Your task to perform on an android device: toggle notification dots Image 0: 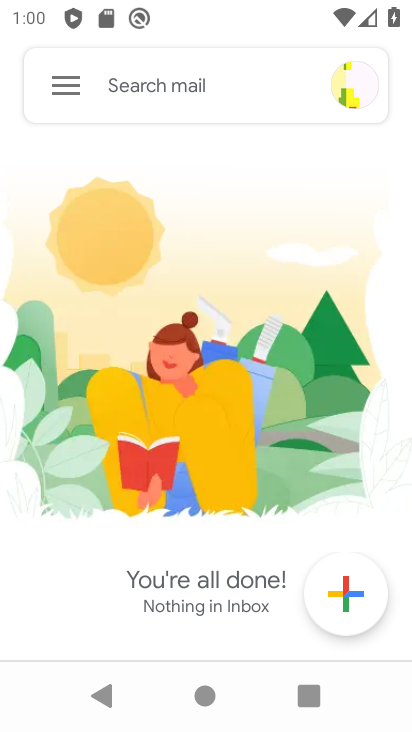
Step 0: press home button
Your task to perform on an android device: toggle notification dots Image 1: 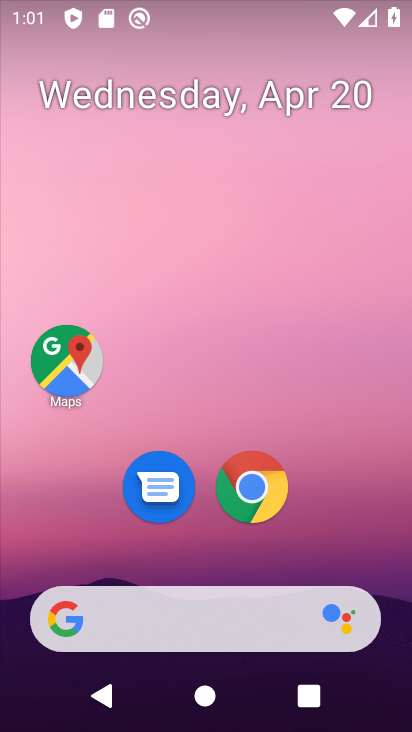
Step 1: drag from (363, 563) to (257, 145)
Your task to perform on an android device: toggle notification dots Image 2: 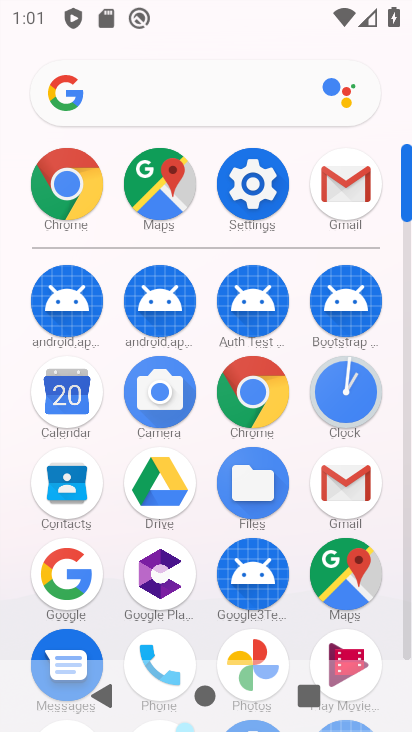
Step 2: click (254, 199)
Your task to perform on an android device: toggle notification dots Image 3: 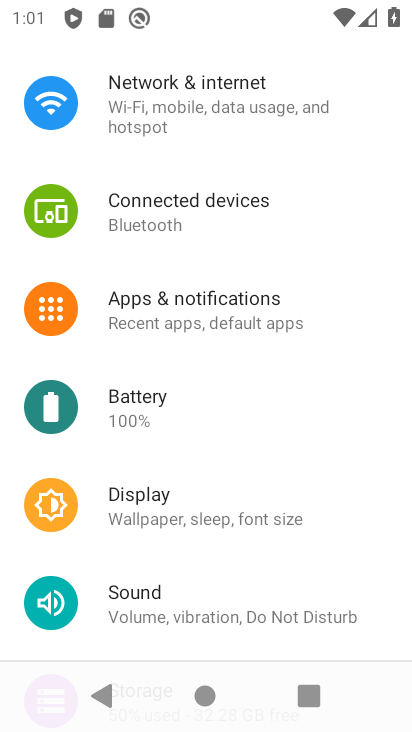
Step 3: click (296, 304)
Your task to perform on an android device: toggle notification dots Image 4: 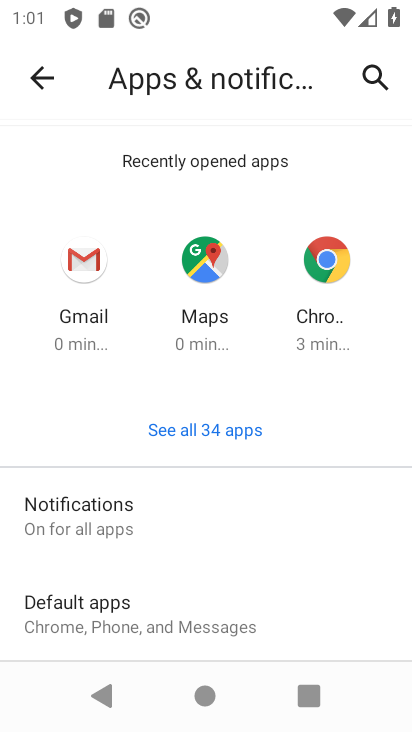
Step 4: click (166, 540)
Your task to perform on an android device: toggle notification dots Image 5: 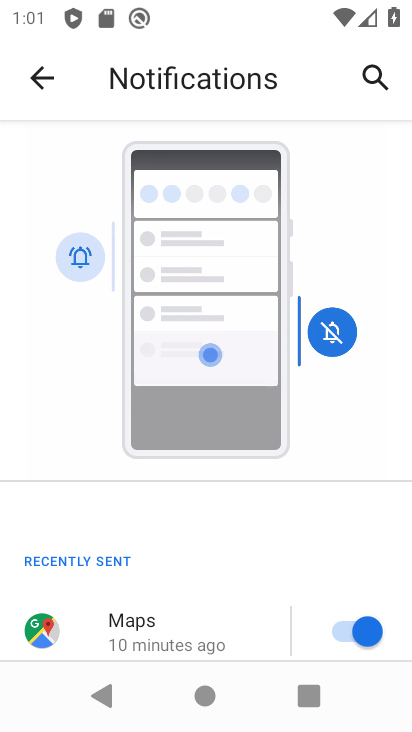
Step 5: drag from (175, 621) to (141, 41)
Your task to perform on an android device: toggle notification dots Image 6: 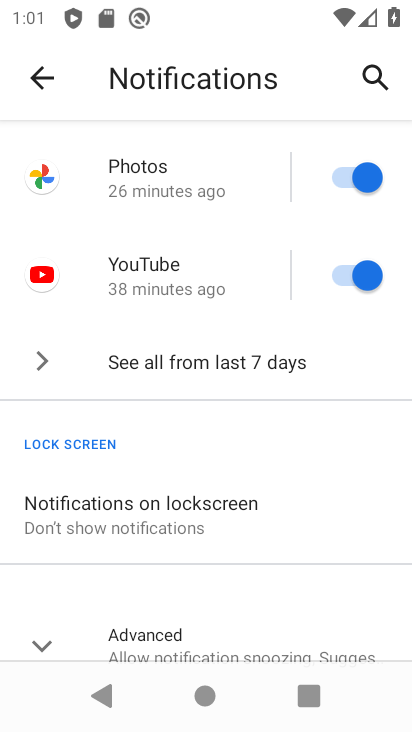
Step 6: drag from (202, 593) to (208, 160)
Your task to perform on an android device: toggle notification dots Image 7: 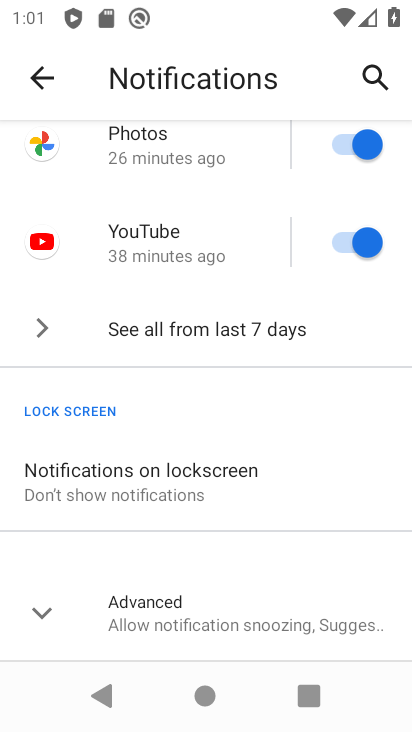
Step 7: click (38, 614)
Your task to perform on an android device: toggle notification dots Image 8: 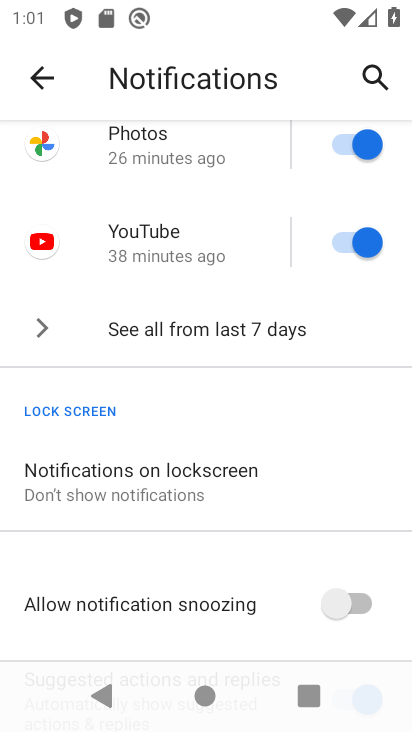
Step 8: drag from (169, 625) to (228, 254)
Your task to perform on an android device: toggle notification dots Image 9: 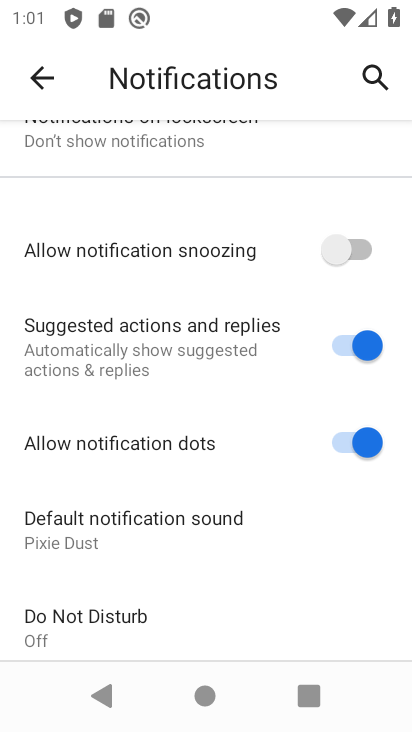
Step 9: click (285, 436)
Your task to perform on an android device: toggle notification dots Image 10: 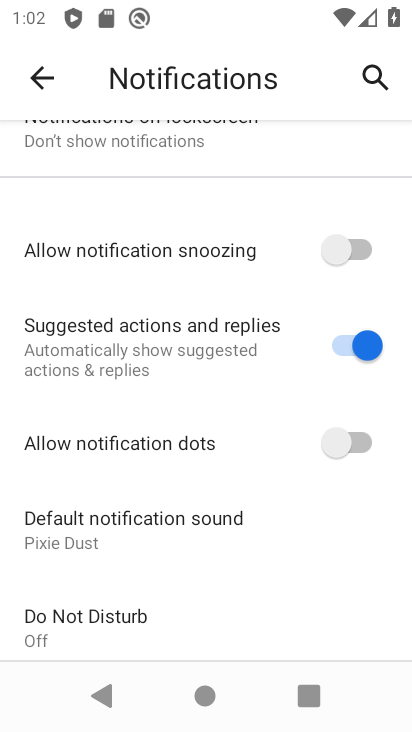
Step 10: task complete